Your task to perform on an android device: Open sound settings Image 0: 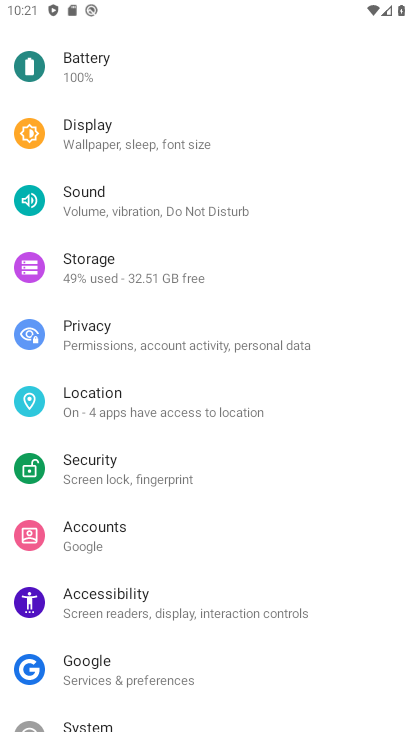
Step 0: click (73, 215)
Your task to perform on an android device: Open sound settings Image 1: 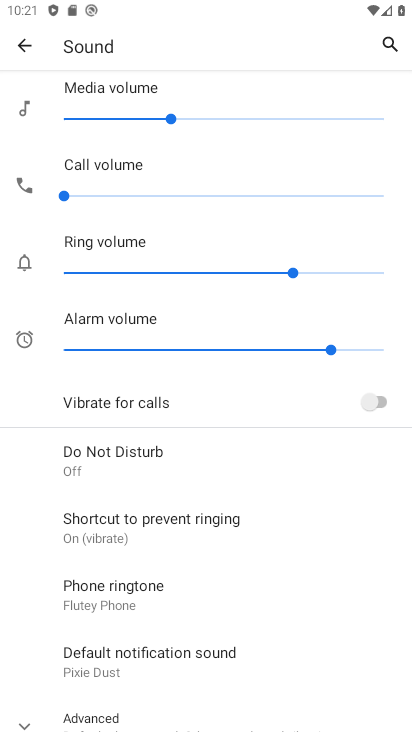
Step 1: task complete